Your task to perform on an android device: turn pop-ups off in chrome Image 0: 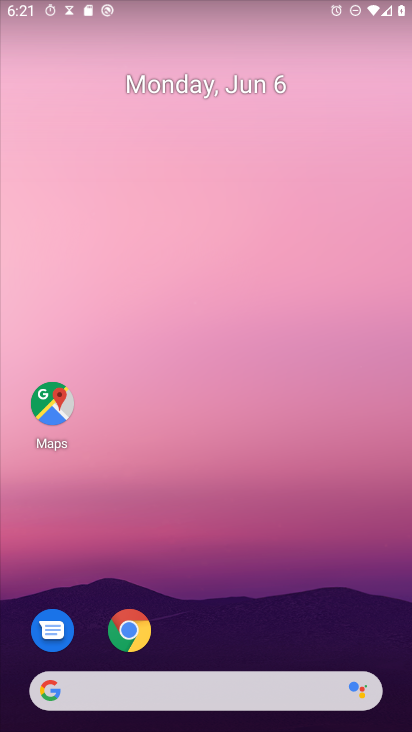
Step 0: click (140, 629)
Your task to perform on an android device: turn pop-ups off in chrome Image 1: 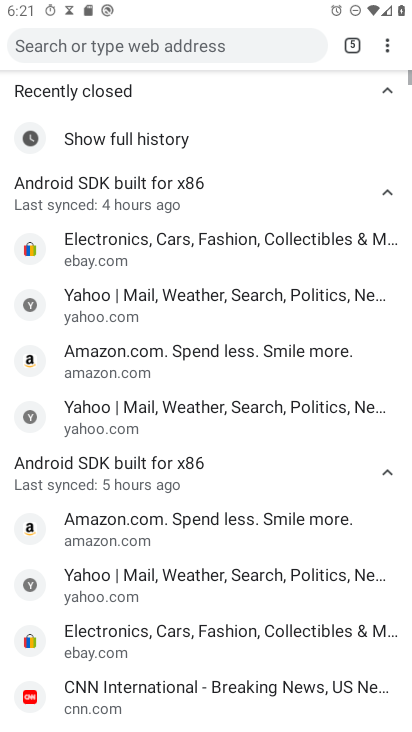
Step 1: click (385, 52)
Your task to perform on an android device: turn pop-ups off in chrome Image 2: 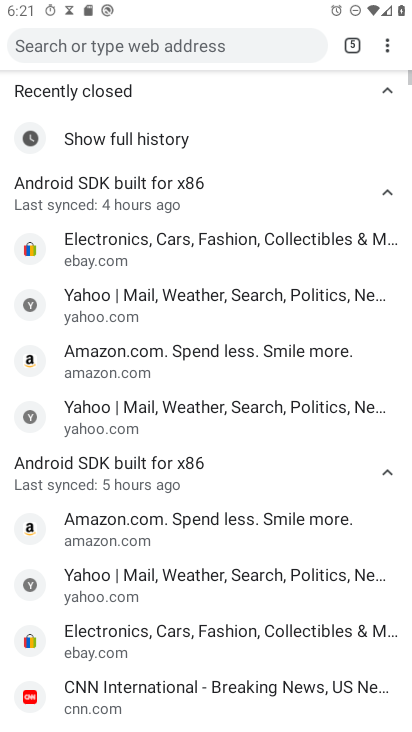
Step 2: click (381, 59)
Your task to perform on an android device: turn pop-ups off in chrome Image 3: 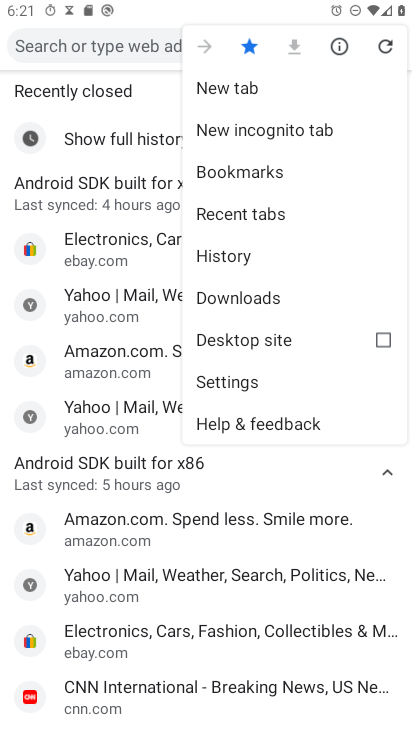
Step 3: click (239, 399)
Your task to perform on an android device: turn pop-ups off in chrome Image 4: 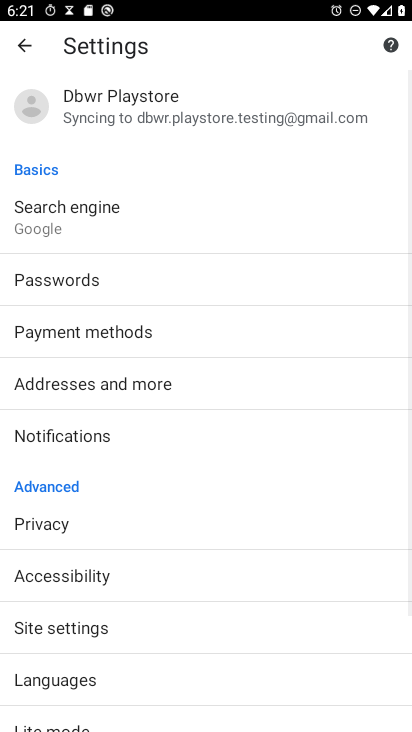
Step 4: drag from (181, 621) to (184, 202)
Your task to perform on an android device: turn pop-ups off in chrome Image 5: 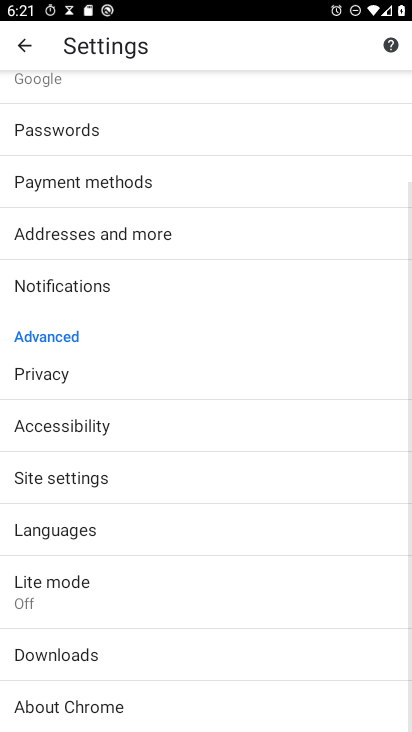
Step 5: click (133, 479)
Your task to perform on an android device: turn pop-ups off in chrome Image 6: 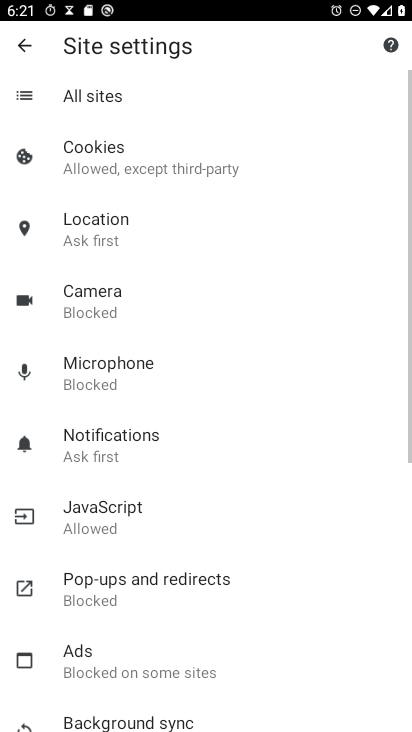
Step 6: click (160, 574)
Your task to perform on an android device: turn pop-ups off in chrome Image 7: 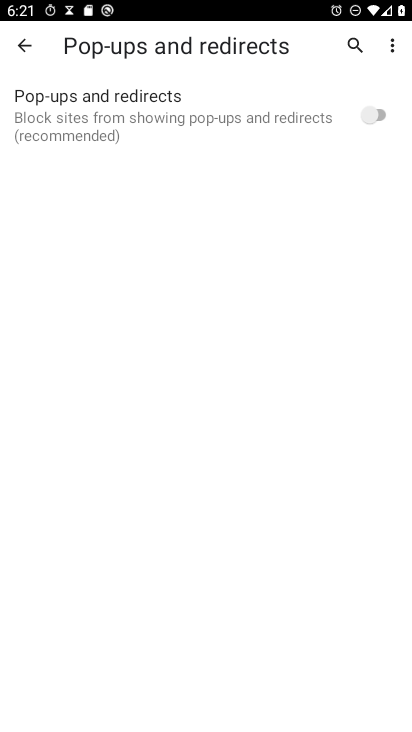
Step 7: task complete